Your task to perform on an android device: turn on data saver in the chrome app Image 0: 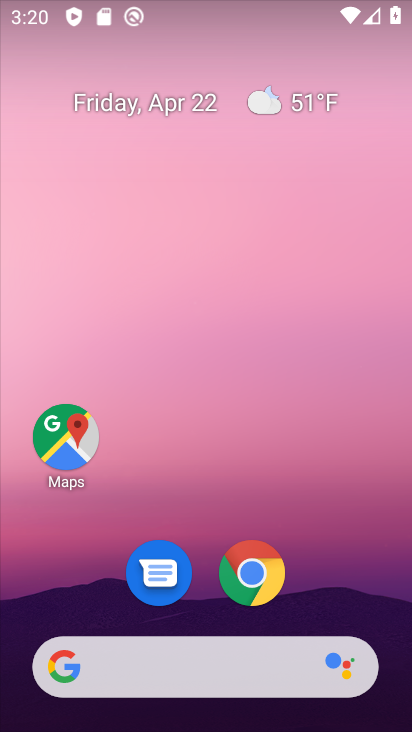
Step 0: click (253, 583)
Your task to perform on an android device: turn on data saver in the chrome app Image 1: 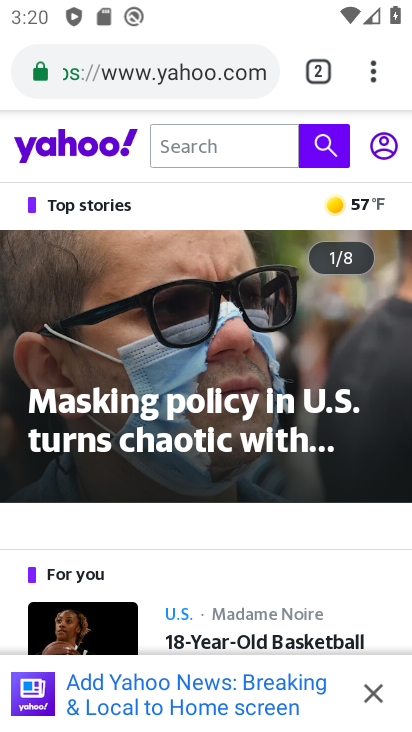
Step 1: click (371, 66)
Your task to perform on an android device: turn on data saver in the chrome app Image 2: 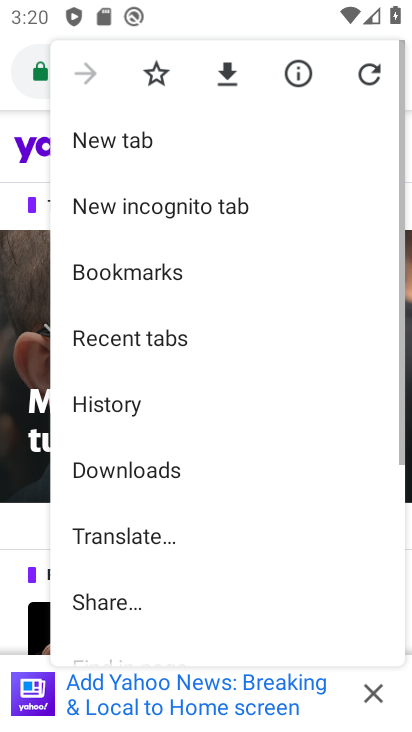
Step 2: drag from (152, 589) to (203, 148)
Your task to perform on an android device: turn on data saver in the chrome app Image 3: 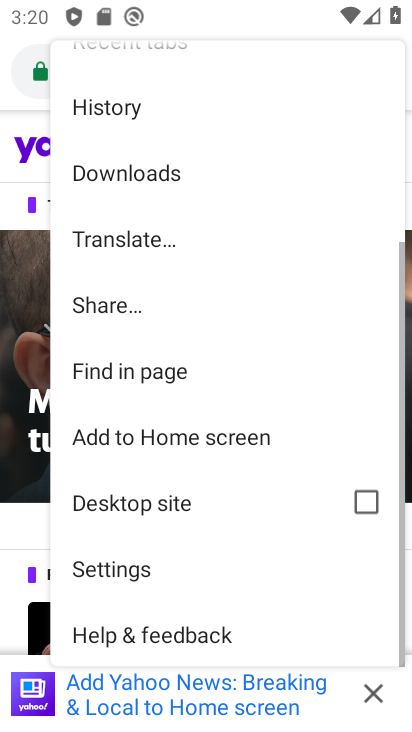
Step 3: click (154, 553)
Your task to perform on an android device: turn on data saver in the chrome app Image 4: 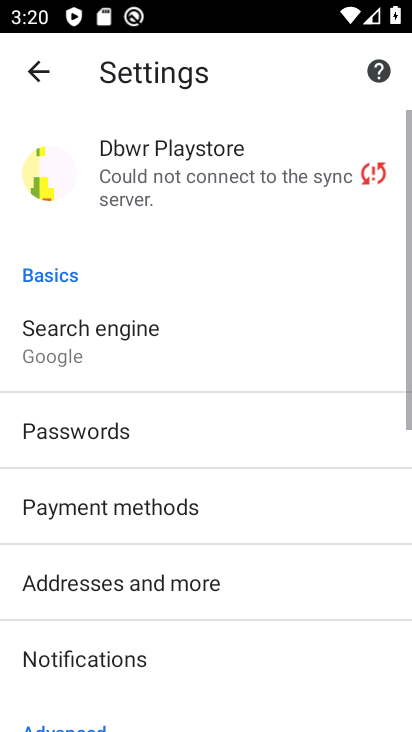
Step 4: drag from (154, 553) to (213, 121)
Your task to perform on an android device: turn on data saver in the chrome app Image 5: 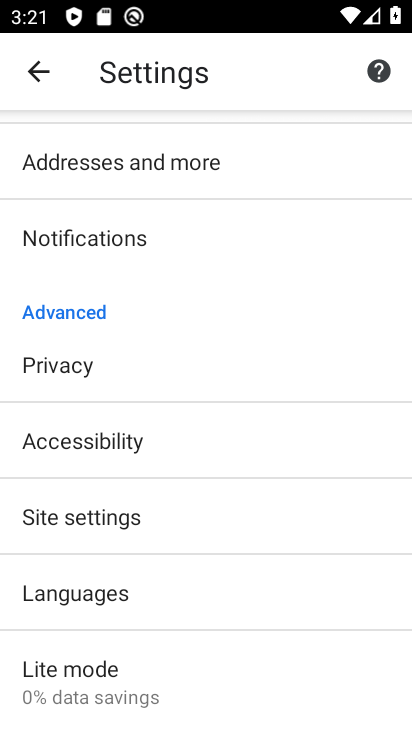
Step 5: drag from (182, 602) to (230, 212)
Your task to perform on an android device: turn on data saver in the chrome app Image 6: 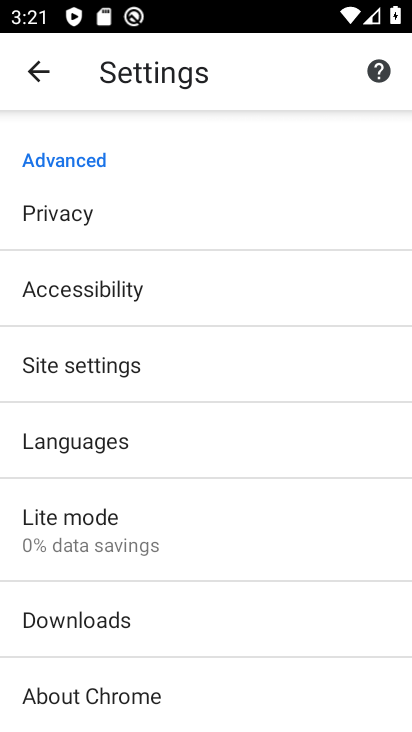
Step 6: click (164, 533)
Your task to perform on an android device: turn on data saver in the chrome app Image 7: 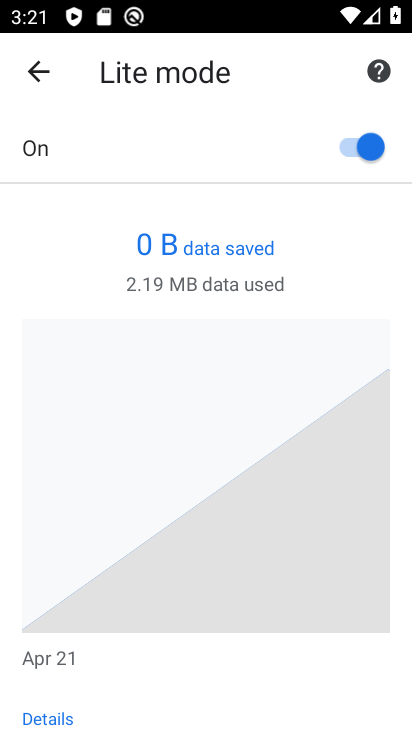
Step 7: task complete